Your task to perform on an android device: turn on location history Image 0: 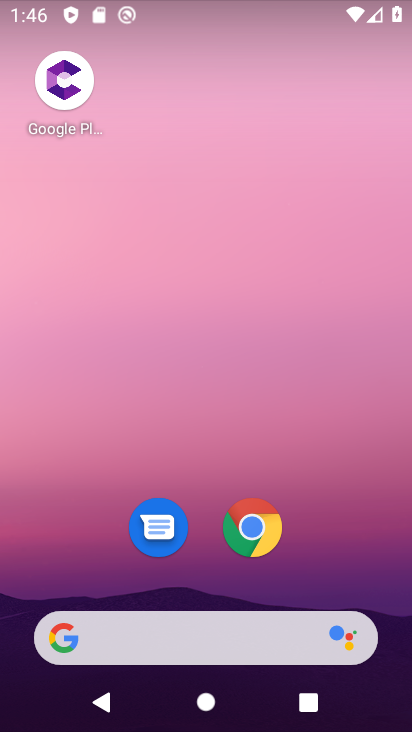
Step 0: drag from (208, 614) to (201, 196)
Your task to perform on an android device: turn on location history Image 1: 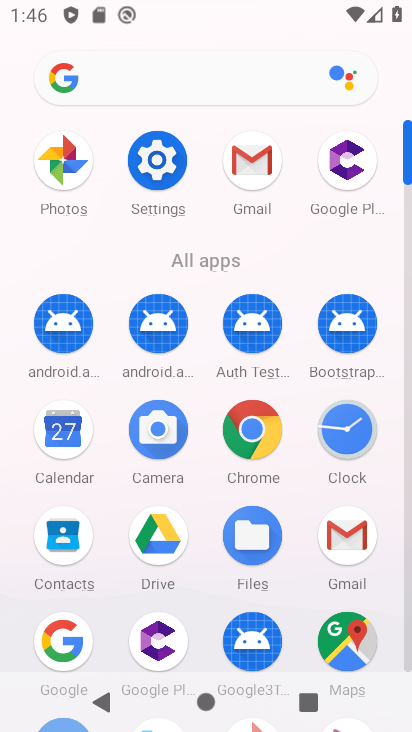
Step 1: press home button
Your task to perform on an android device: turn on location history Image 2: 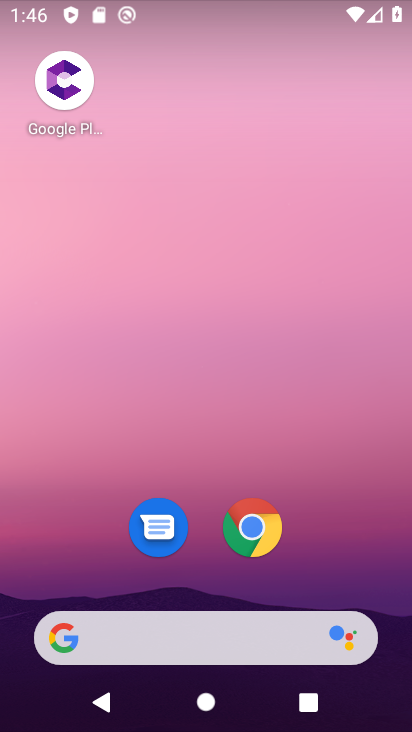
Step 2: drag from (194, 384) to (196, 182)
Your task to perform on an android device: turn on location history Image 3: 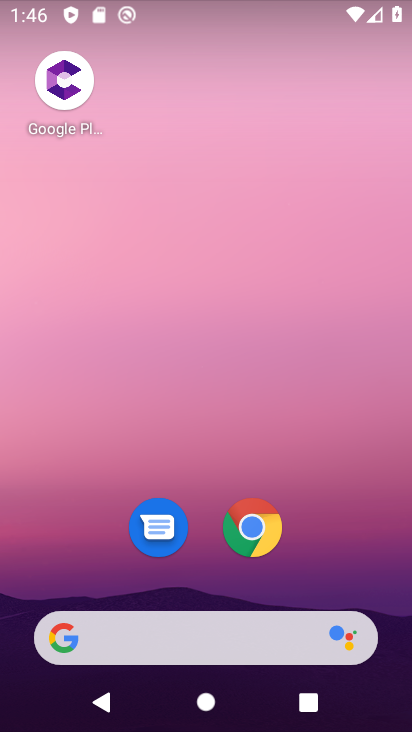
Step 3: drag from (156, 633) to (214, 117)
Your task to perform on an android device: turn on location history Image 4: 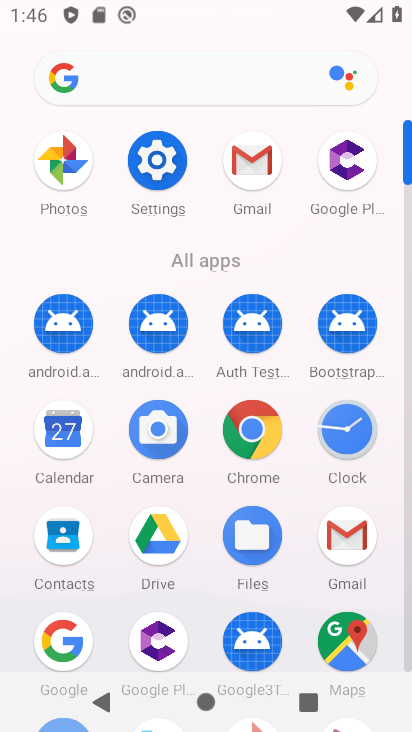
Step 4: click (170, 173)
Your task to perform on an android device: turn on location history Image 5: 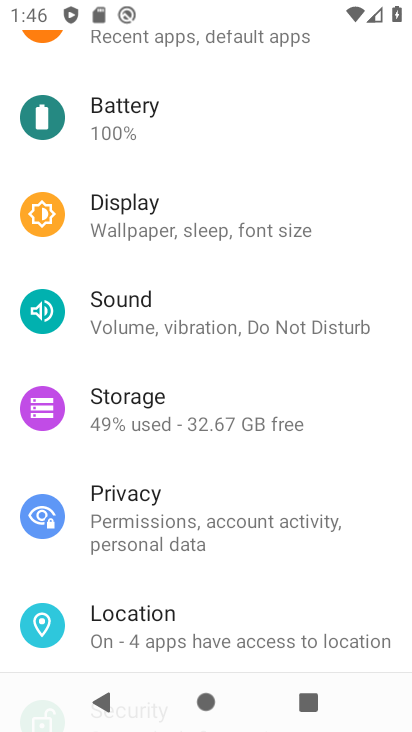
Step 5: click (159, 618)
Your task to perform on an android device: turn on location history Image 6: 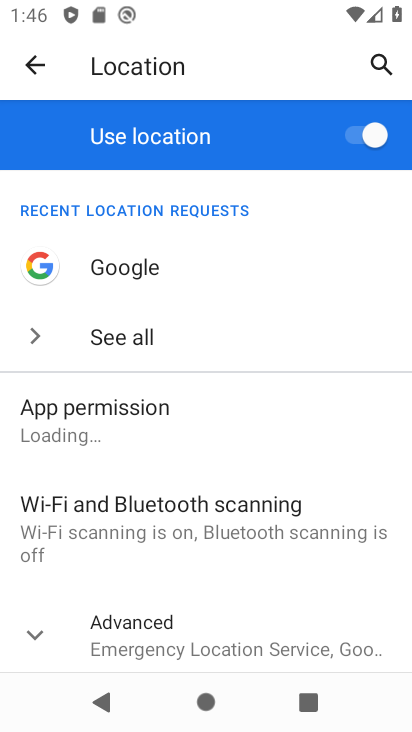
Step 6: click (127, 639)
Your task to perform on an android device: turn on location history Image 7: 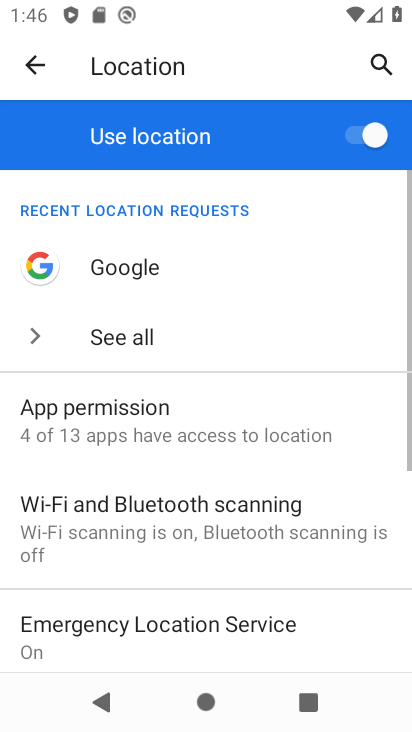
Step 7: drag from (284, 601) to (326, 131)
Your task to perform on an android device: turn on location history Image 8: 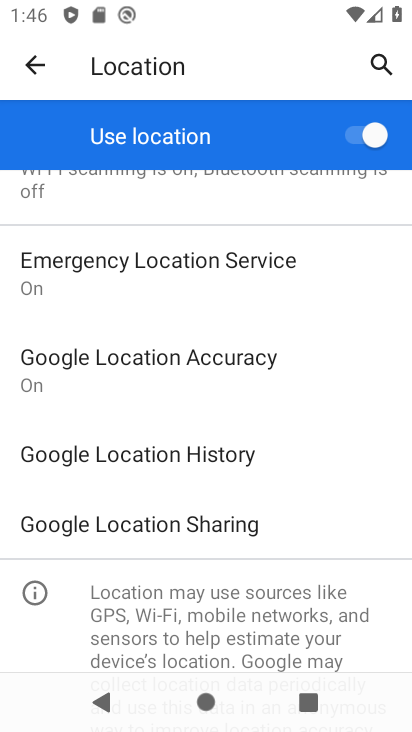
Step 8: click (223, 465)
Your task to perform on an android device: turn on location history Image 9: 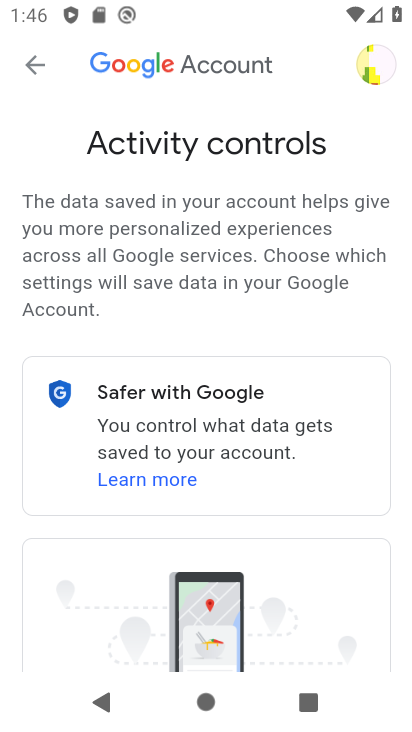
Step 9: task complete